Your task to perform on an android device: empty trash in google photos Image 0: 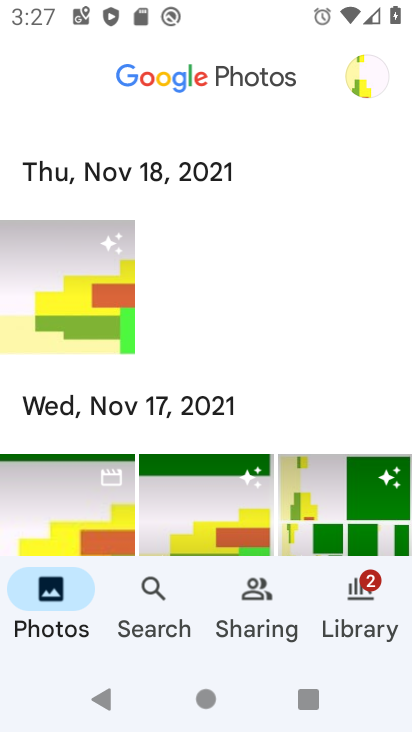
Step 0: click (22, 87)
Your task to perform on an android device: empty trash in google photos Image 1: 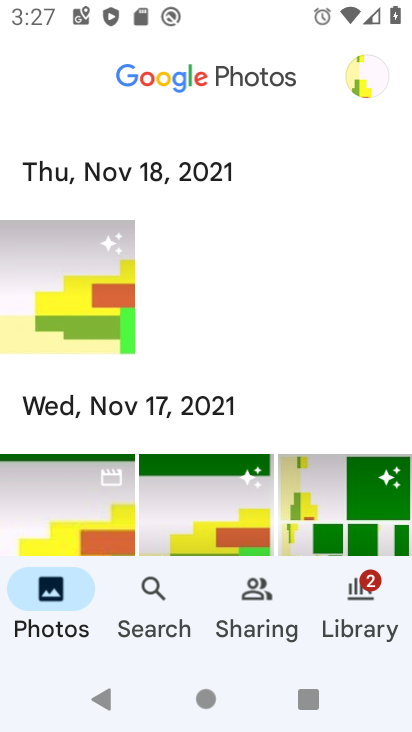
Step 1: drag from (303, 524) to (215, 119)
Your task to perform on an android device: empty trash in google photos Image 2: 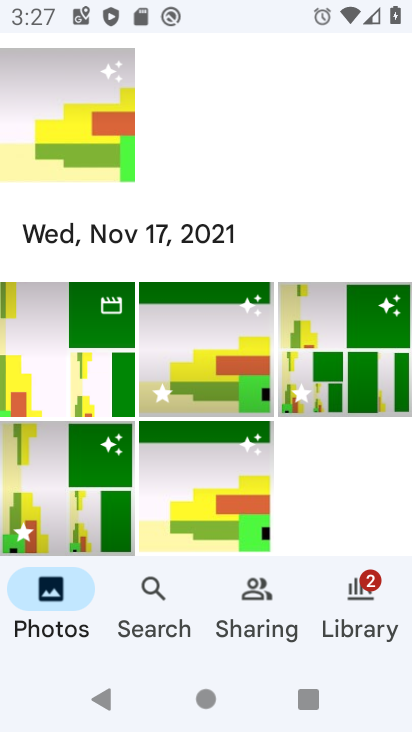
Step 2: click (365, 601)
Your task to perform on an android device: empty trash in google photos Image 3: 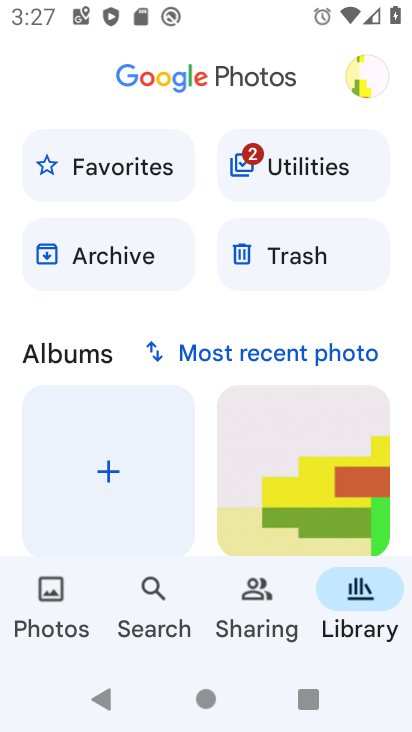
Step 3: click (251, 266)
Your task to perform on an android device: empty trash in google photos Image 4: 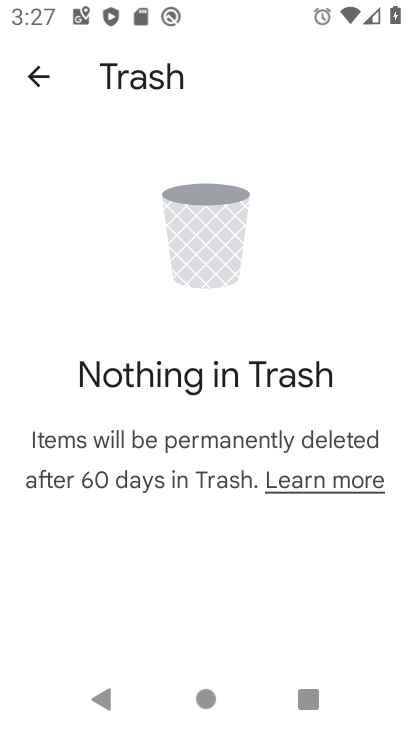
Step 4: task complete